Your task to perform on an android device: Show me productivity apps on the Play Store Image 0: 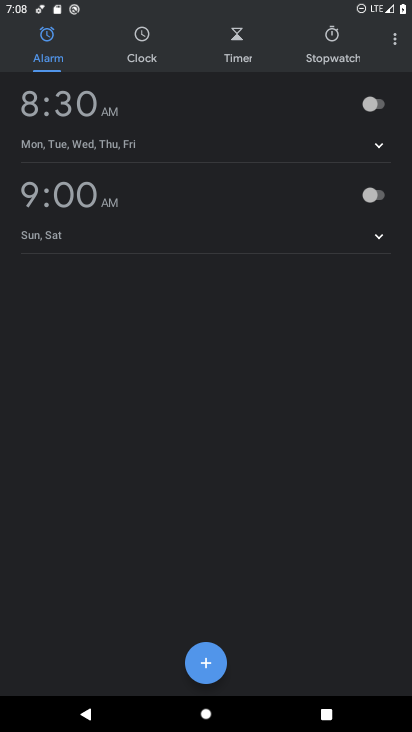
Step 0: press home button
Your task to perform on an android device: Show me productivity apps on the Play Store Image 1: 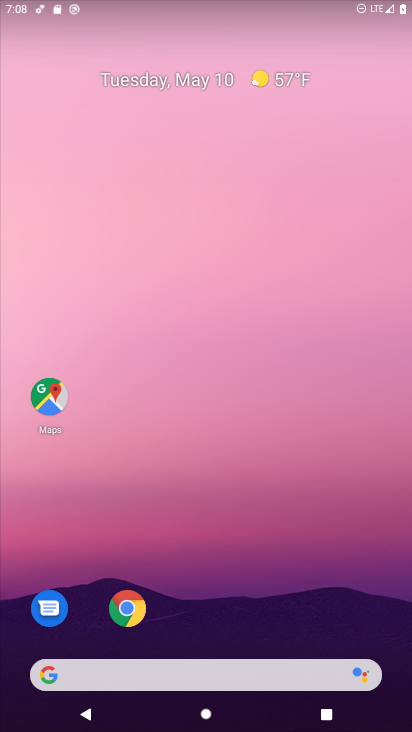
Step 1: drag from (339, 608) to (279, 24)
Your task to perform on an android device: Show me productivity apps on the Play Store Image 2: 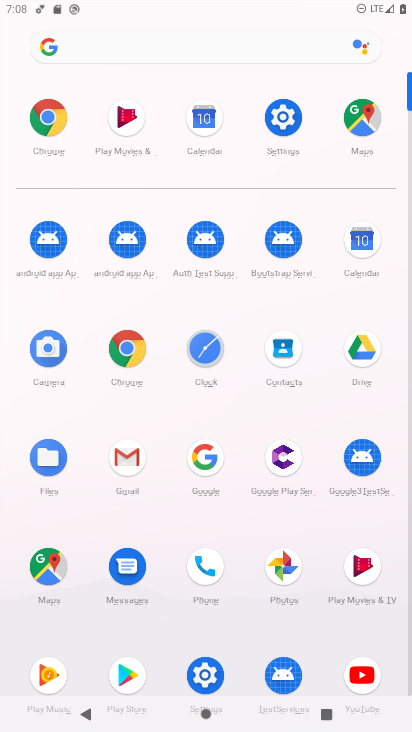
Step 2: click (132, 661)
Your task to perform on an android device: Show me productivity apps on the Play Store Image 3: 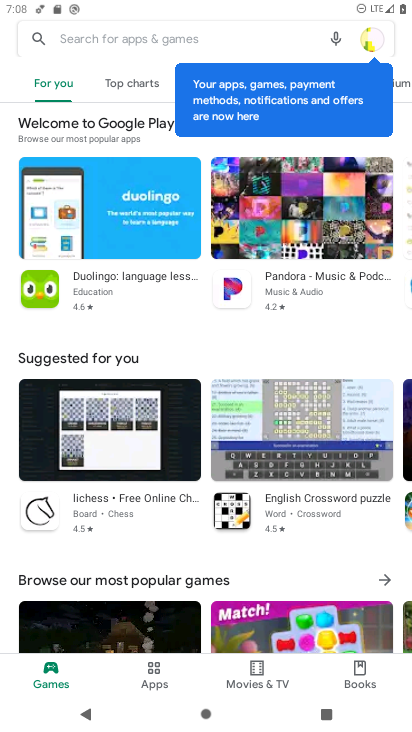
Step 3: task complete